Your task to perform on an android device: see tabs open on other devices in the chrome app Image 0: 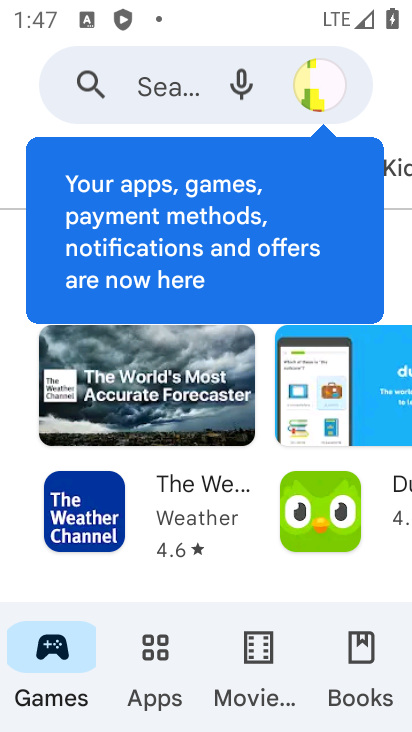
Step 0: press home button
Your task to perform on an android device: see tabs open on other devices in the chrome app Image 1: 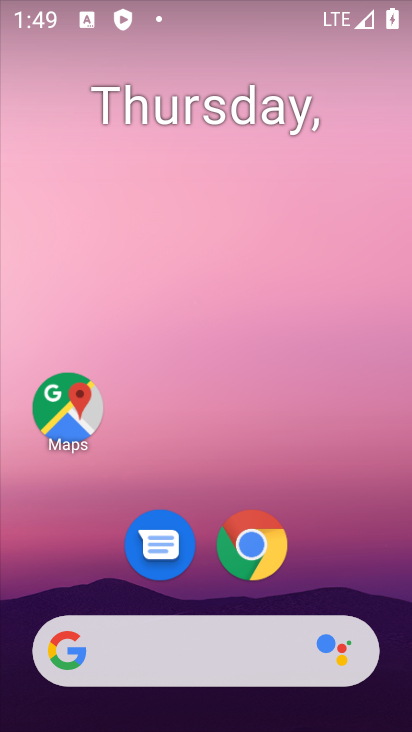
Step 1: drag from (199, 582) to (270, 37)
Your task to perform on an android device: see tabs open on other devices in the chrome app Image 2: 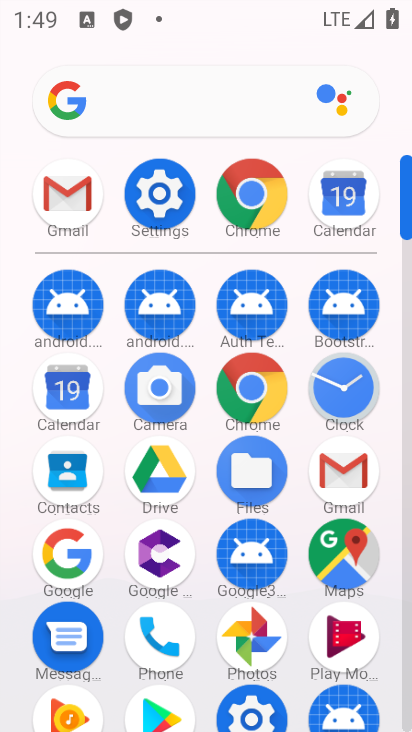
Step 2: click (241, 375)
Your task to perform on an android device: see tabs open on other devices in the chrome app Image 3: 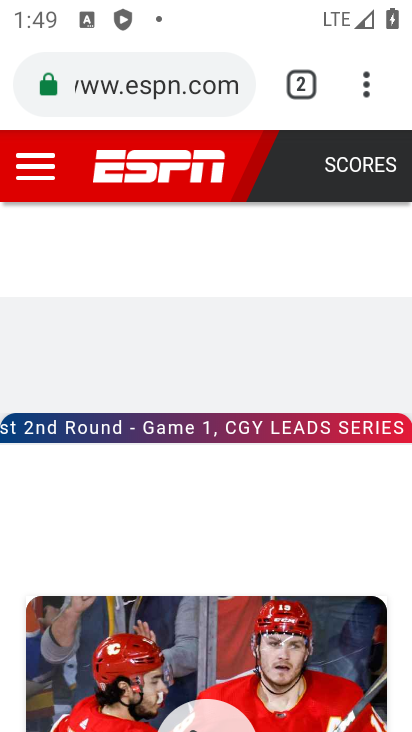
Step 3: click (368, 82)
Your task to perform on an android device: see tabs open on other devices in the chrome app Image 4: 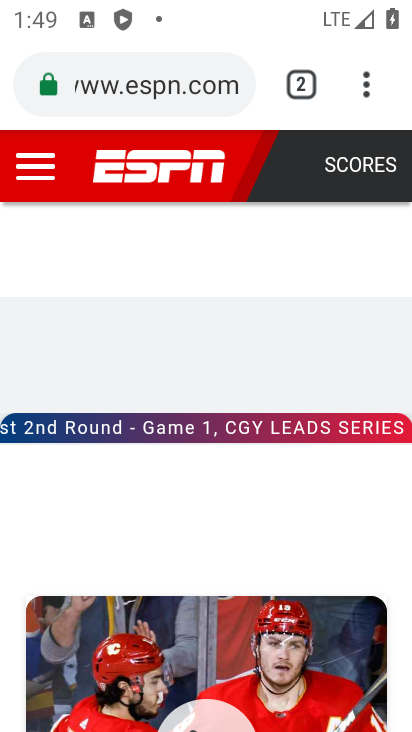
Step 4: task complete